Your task to perform on an android device: Show me the alarms in the clock app Image 0: 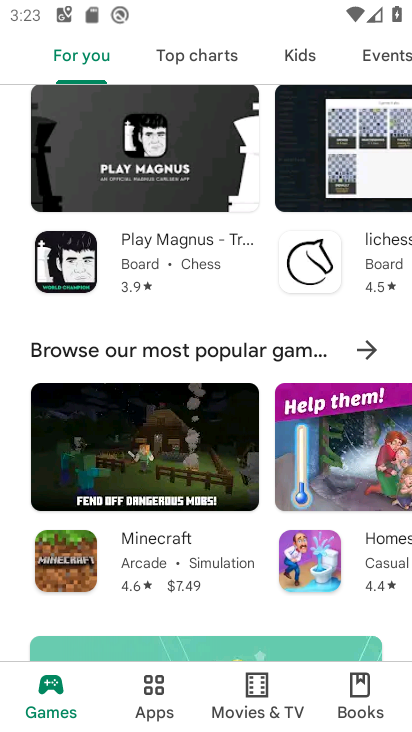
Step 0: press home button
Your task to perform on an android device: Show me the alarms in the clock app Image 1: 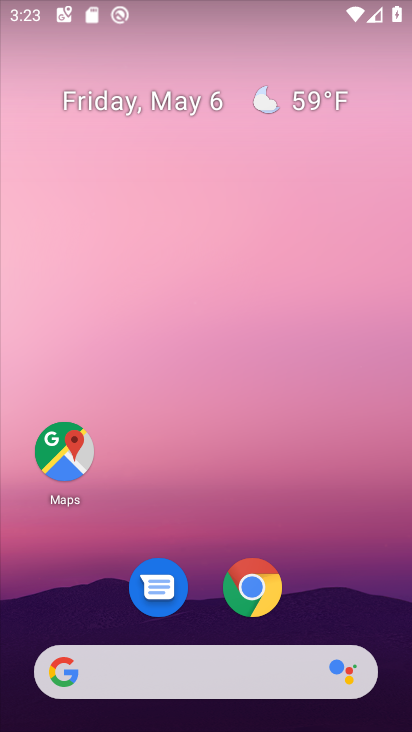
Step 1: drag from (317, 493) to (254, 47)
Your task to perform on an android device: Show me the alarms in the clock app Image 2: 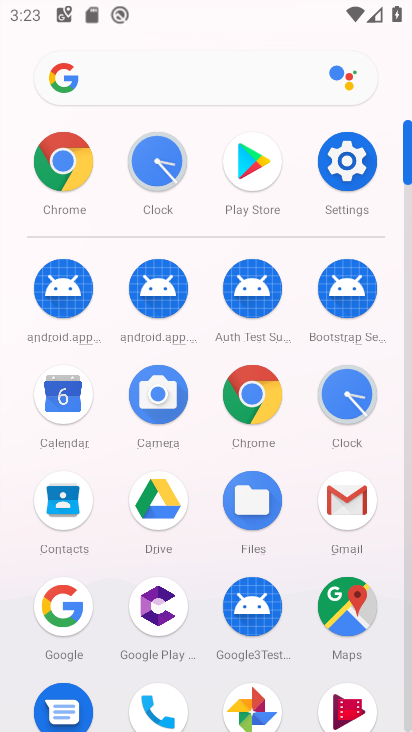
Step 2: click (169, 160)
Your task to perform on an android device: Show me the alarms in the clock app Image 3: 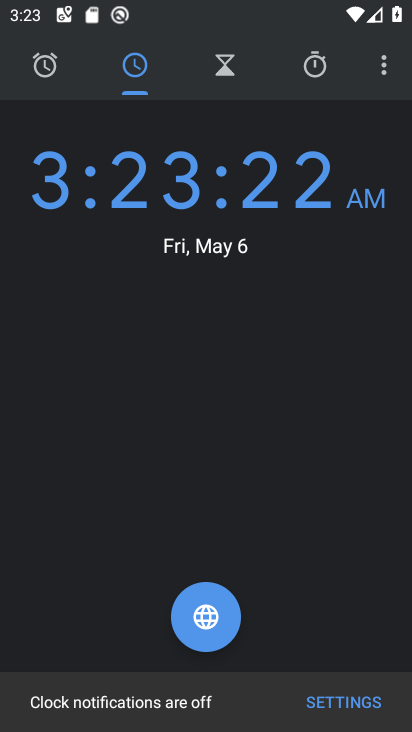
Step 3: click (53, 68)
Your task to perform on an android device: Show me the alarms in the clock app Image 4: 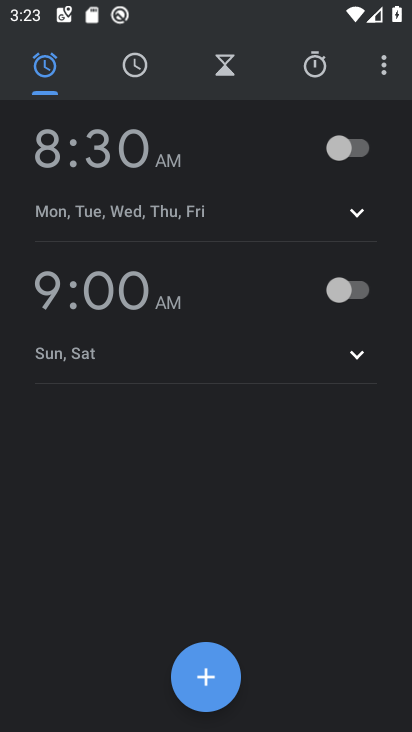
Step 4: task complete